Your task to perform on an android device: snooze an email in the gmail app Image 0: 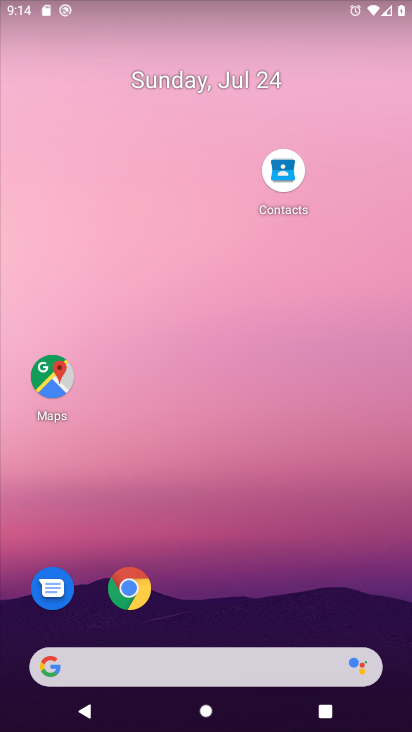
Step 0: press home button
Your task to perform on an android device: snooze an email in the gmail app Image 1: 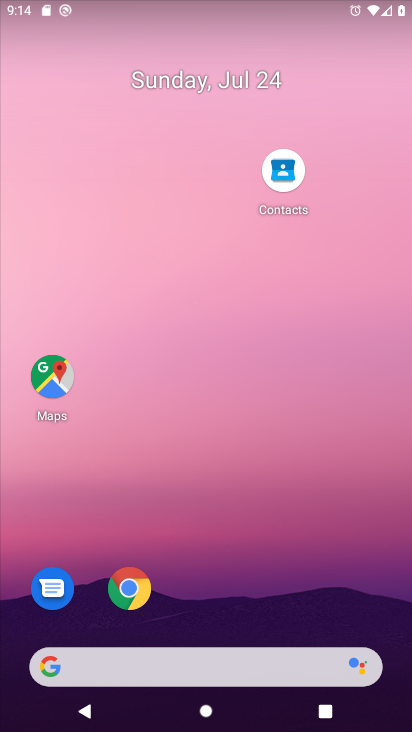
Step 1: drag from (212, 632) to (204, 59)
Your task to perform on an android device: snooze an email in the gmail app Image 2: 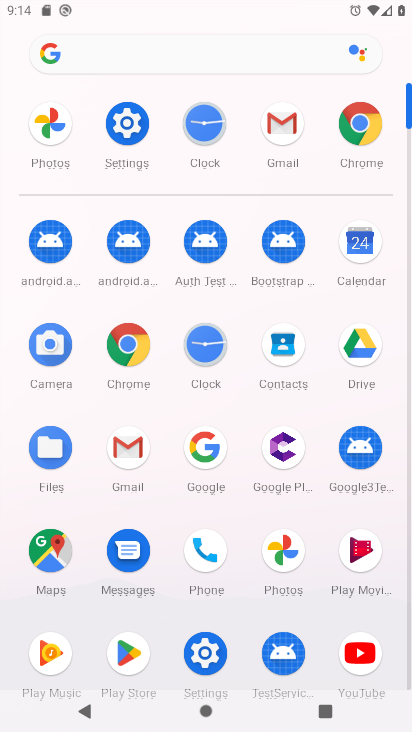
Step 2: click (129, 439)
Your task to perform on an android device: snooze an email in the gmail app Image 3: 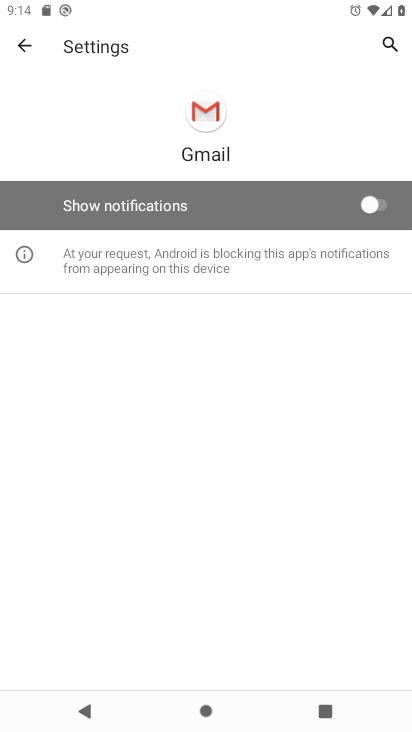
Step 3: click (28, 51)
Your task to perform on an android device: snooze an email in the gmail app Image 4: 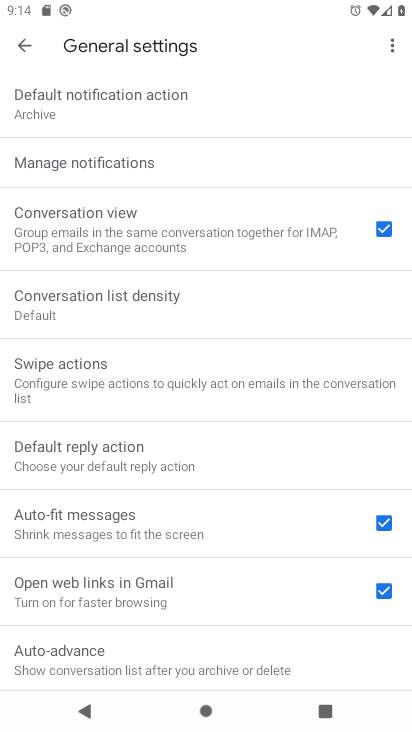
Step 4: click (18, 40)
Your task to perform on an android device: snooze an email in the gmail app Image 5: 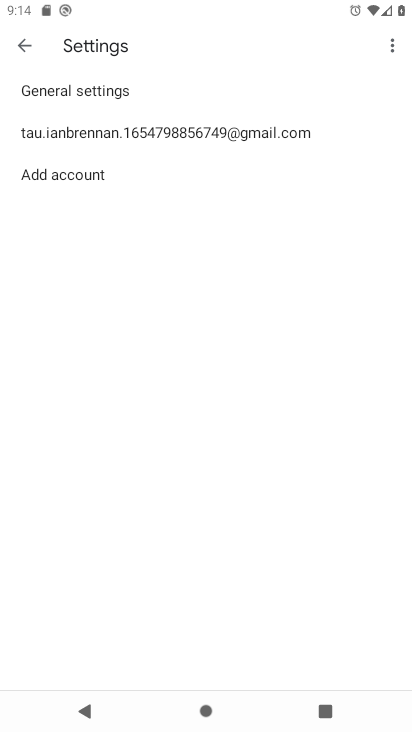
Step 5: click (24, 44)
Your task to perform on an android device: snooze an email in the gmail app Image 6: 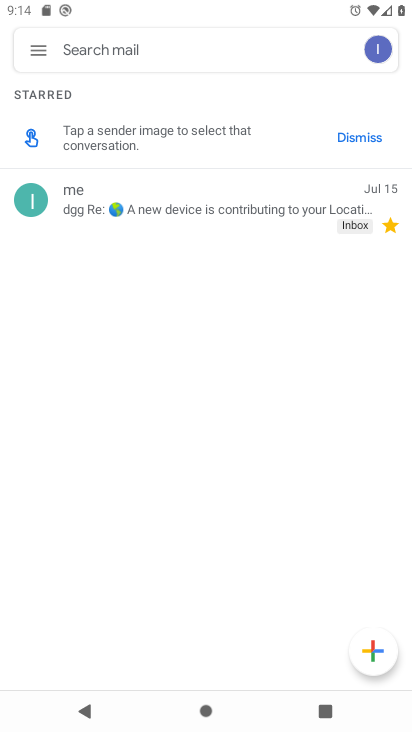
Step 6: click (25, 190)
Your task to perform on an android device: snooze an email in the gmail app Image 7: 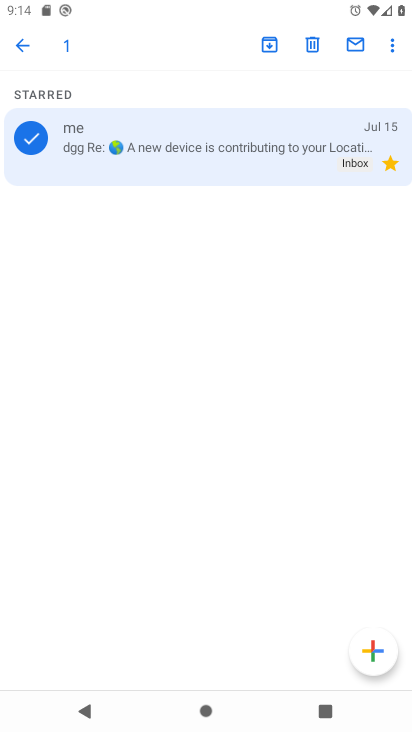
Step 7: click (397, 45)
Your task to perform on an android device: snooze an email in the gmail app Image 8: 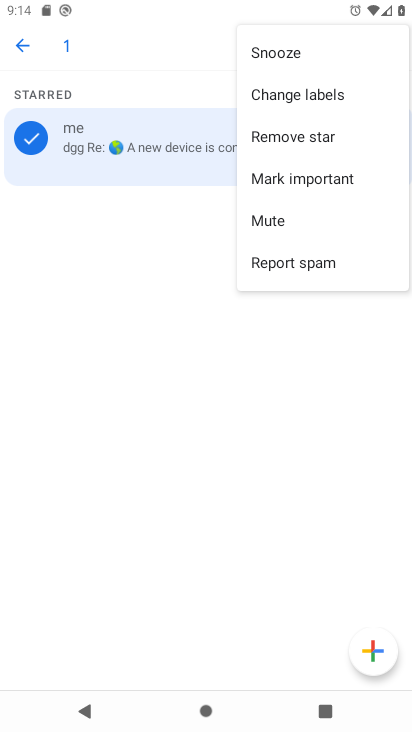
Step 8: click (271, 48)
Your task to perform on an android device: snooze an email in the gmail app Image 9: 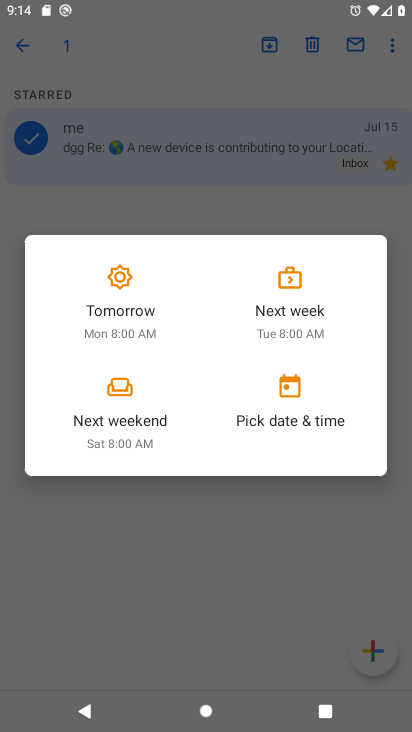
Step 9: click (286, 413)
Your task to perform on an android device: snooze an email in the gmail app Image 10: 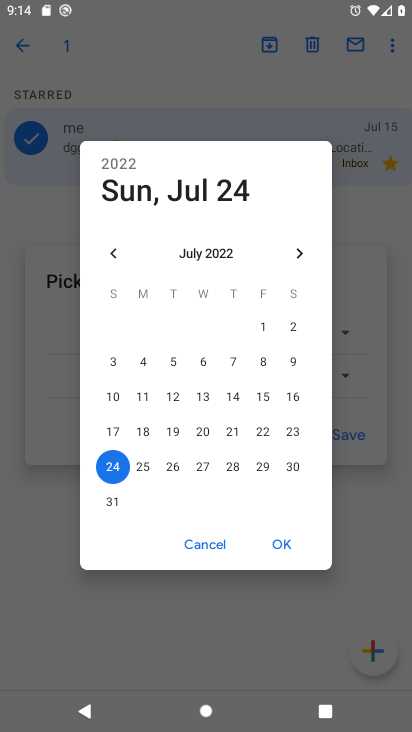
Step 10: click (293, 254)
Your task to perform on an android device: snooze an email in the gmail app Image 11: 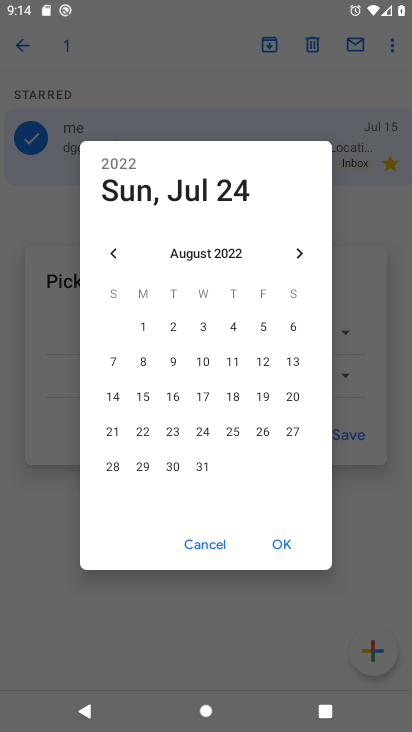
Step 11: click (288, 427)
Your task to perform on an android device: snooze an email in the gmail app Image 12: 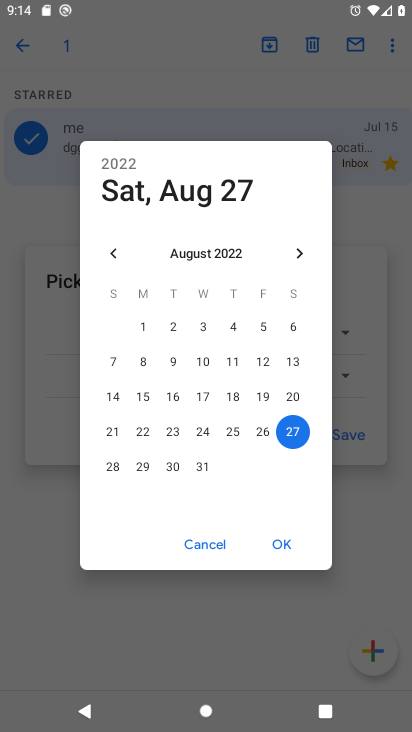
Step 12: click (291, 541)
Your task to perform on an android device: snooze an email in the gmail app Image 13: 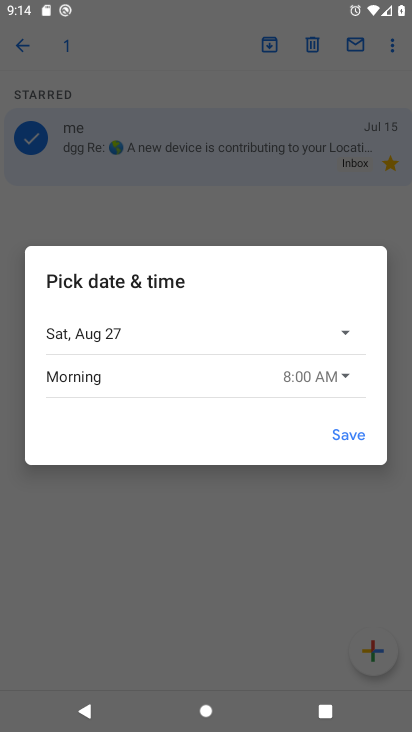
Step 13: click (337, 433)
Your task to perform on an android device: snooze an email in the gmail app Image 14: 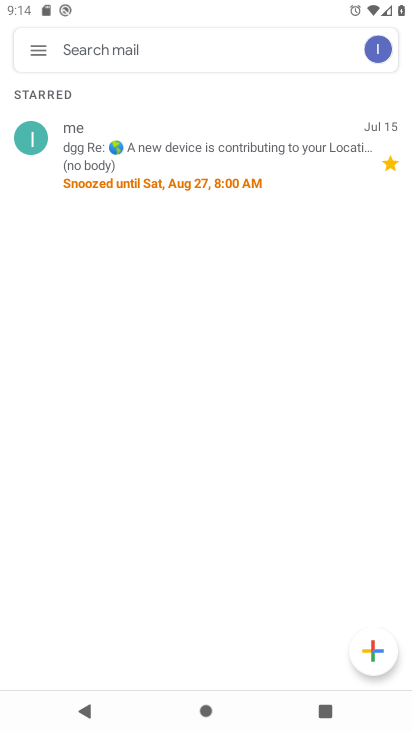
Step 14: task complete